Your task to perform on an android device: Go to Google Image 0: 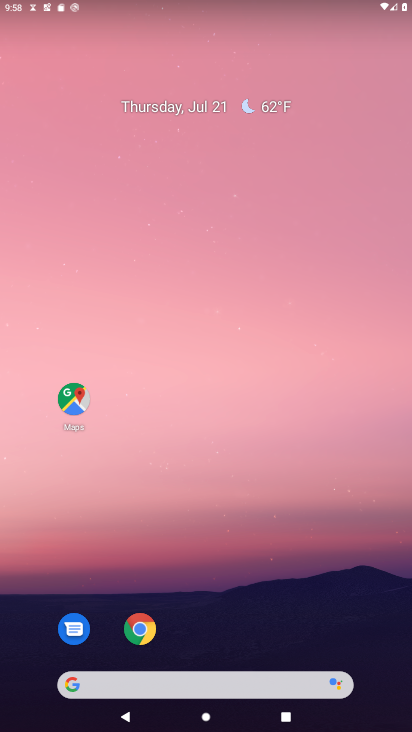
Step 0: drag from (206, 602) to (175, 323)
Your task to perform on an android device: Go to Google Image 1: 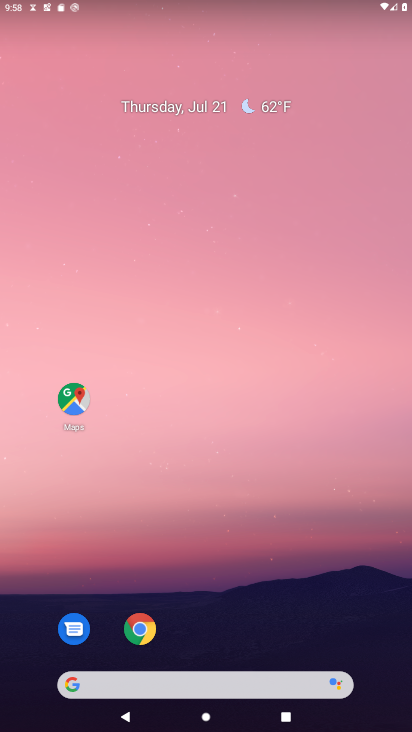
Step 1: drag from (156, 600) to (165, 288)
Your task to perform on an android device: Go to Google Image 2: 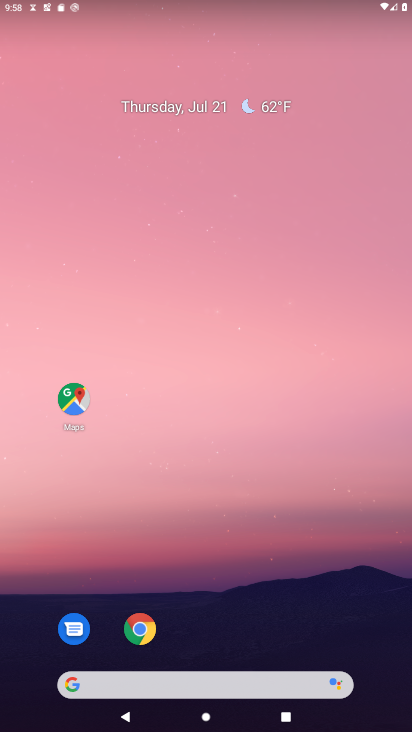
Step 2: drag from (197, 671) to (185, 290)
Your task to perform on an android device: Go to Google Image 3: 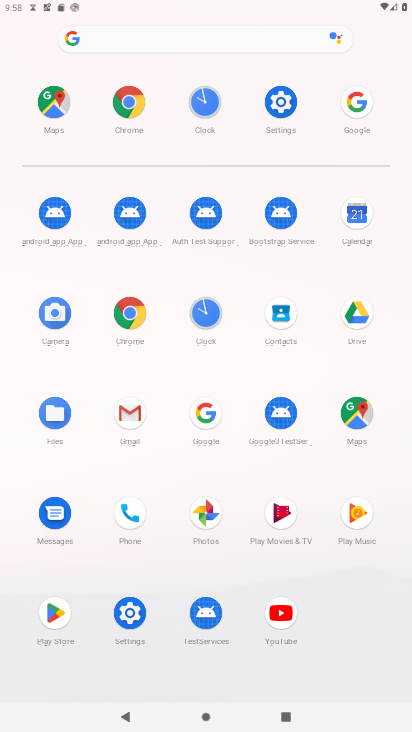
Step 3: click (200, 405)
Your task to perform on an android device: Go to Google Image 4: 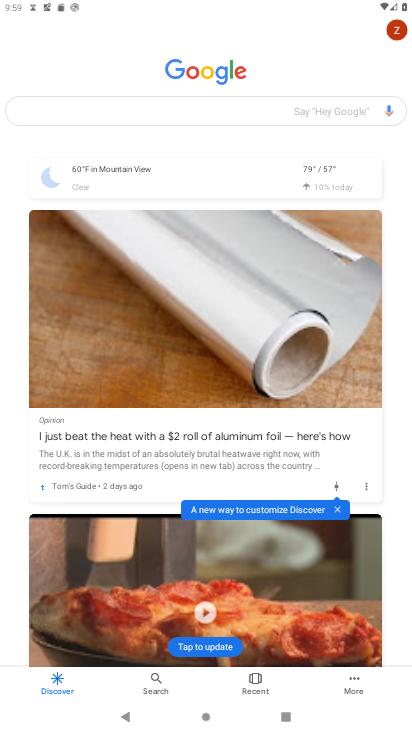
Step 4: task complete